Your task to perform on an android device: toggle show notifications on the lock screen Image 0: 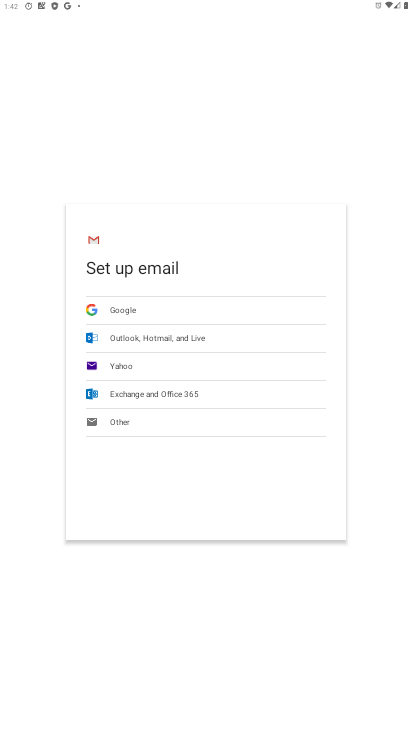
Step 0: press home button
Your task to perform on an android device: toggle show notifications on the lock screen Image 1: 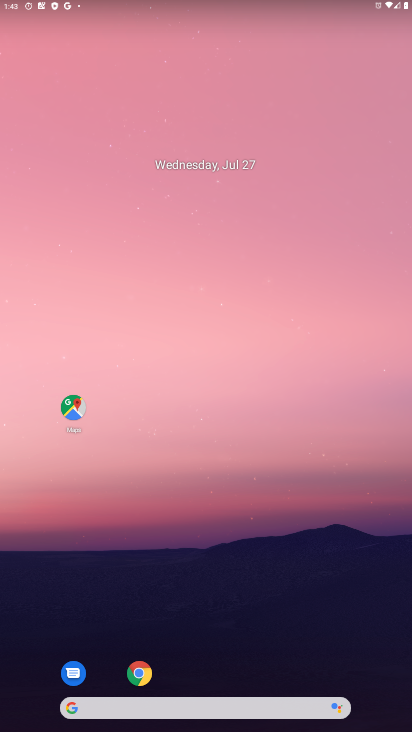
Step 1: drag from (263, 662) to (284, 88)
Your task to perform on an android device: toggle show notifications on the lock screen Image 2: 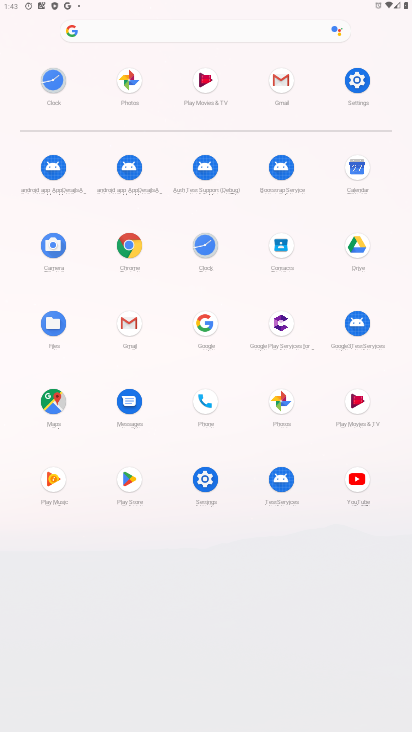
Step 2: click (359, 89)
Your task to perform on an android device: toggle show notifications on the lock screen Image 3: 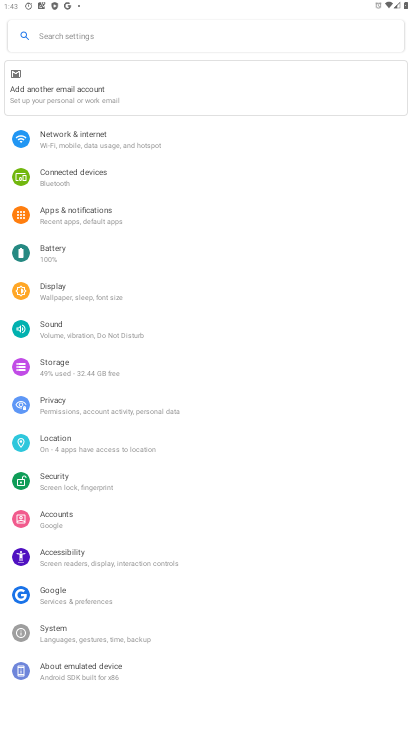
Step 3: click (56, 222)
Your task to perform on an android device: toggle show notifications on the lock screen Image 4: 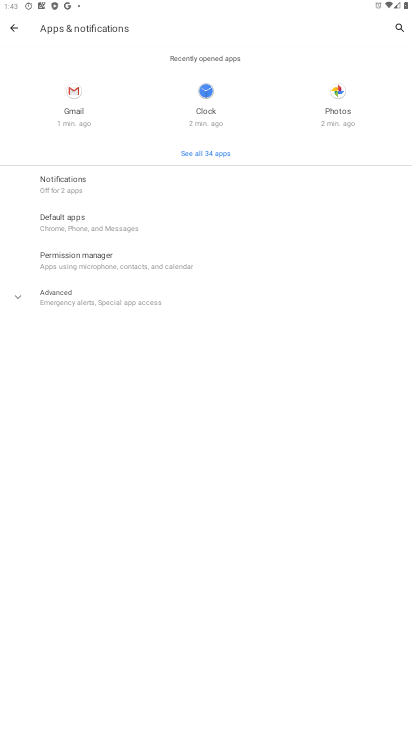
Step 4: click (59, 190)
Your task to perform on an android device: toggle show notifications on the lock screen Image 5: 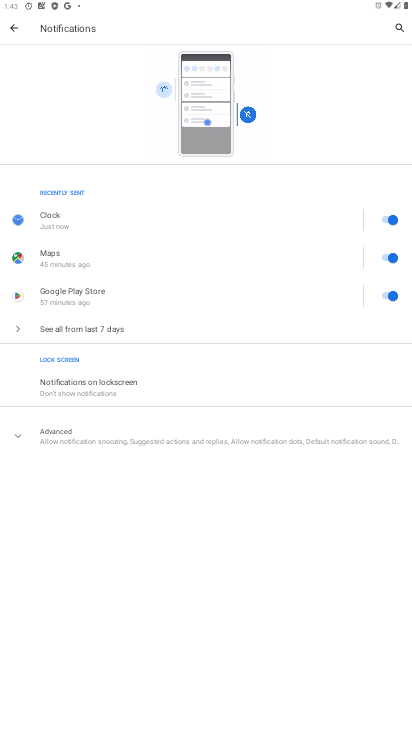
Step 5: click (69, 398)
Your task to perform on an android device: toggle show notifications on the lock screen Image 6: 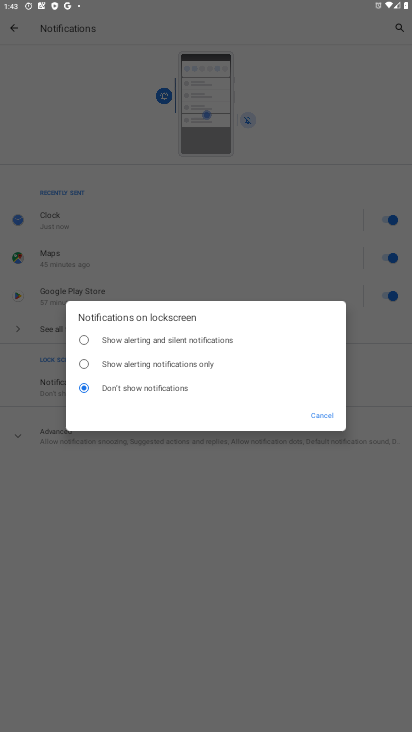
Step 6: click (85, 339)
Your task to perform on an android device: toggle show notifications on the lock screen Image 7: 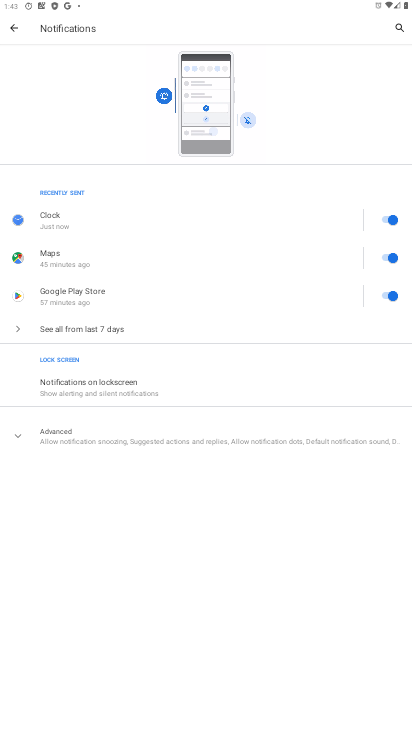
Step 7: task complete